Your task to perform on an android device: Check the news Image 0: 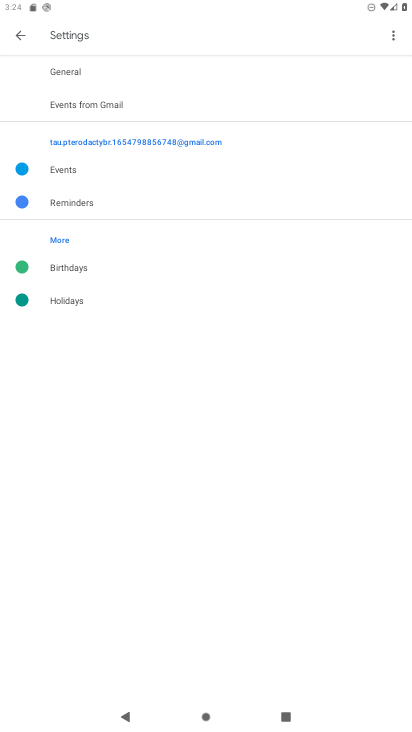
Step 0: press home button
Your task to perform on an android device: Check the news Image 1: 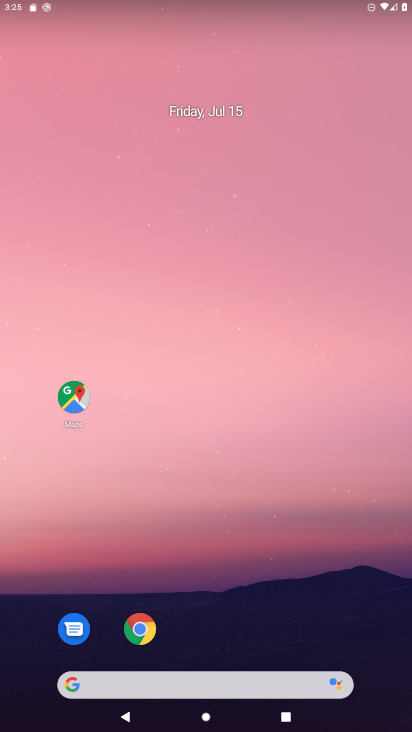
Step 1: drag from (253, 479) to (204, 13)
Your task to perform on an android device: Check the news Image 2: 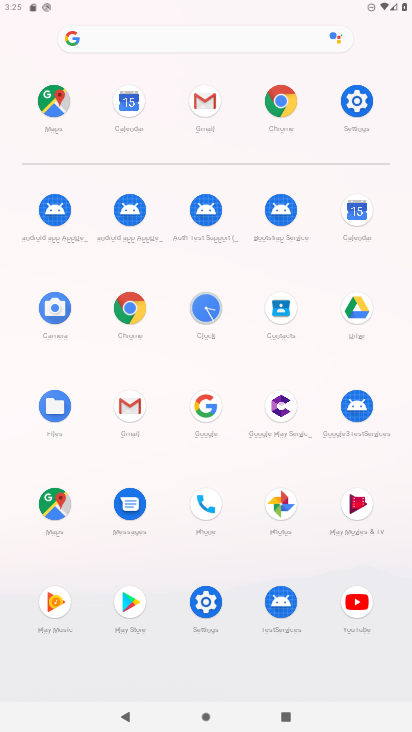
Step 2: click (281, 100)
Your task to perform on an android device: Check the news Image 3: 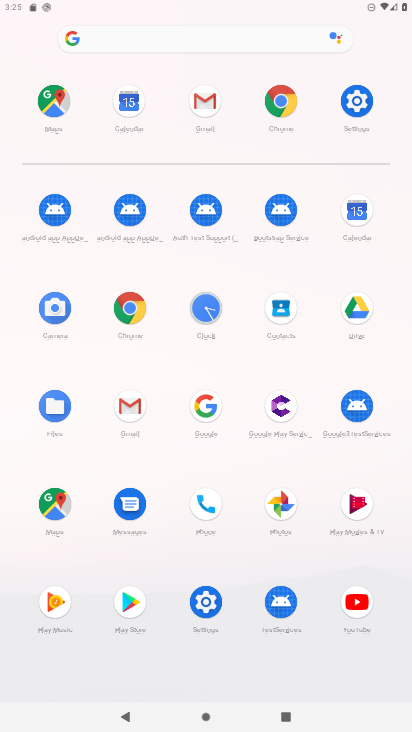
Step 3: click (292, 113)
Your task to perform on an android device: Check the news Image 4: 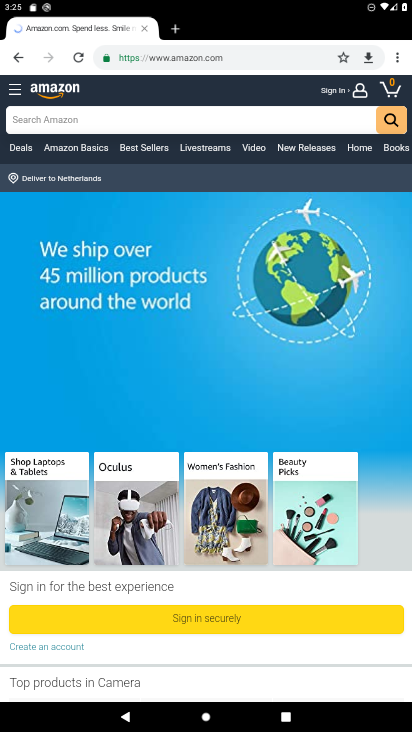
Step 4: task complete